Your task to perform on an android device: Open the phone app and click the voicemail tab. Image 0: 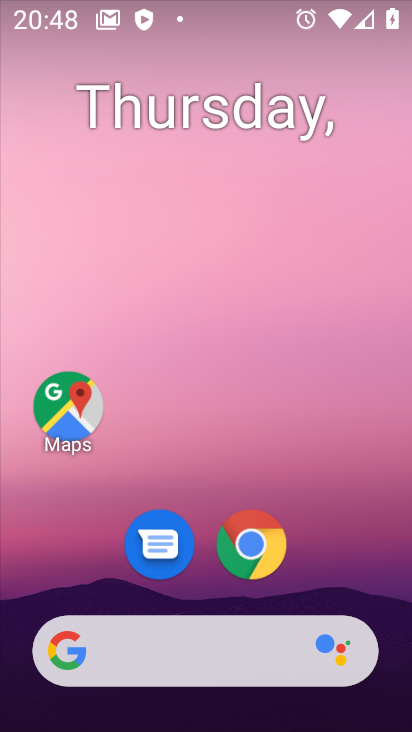
Step 0: drag from (201, 596) to (216, 314)
Your task to perform on an android device: Open the phone app and click the voicemail tab. Image 1: 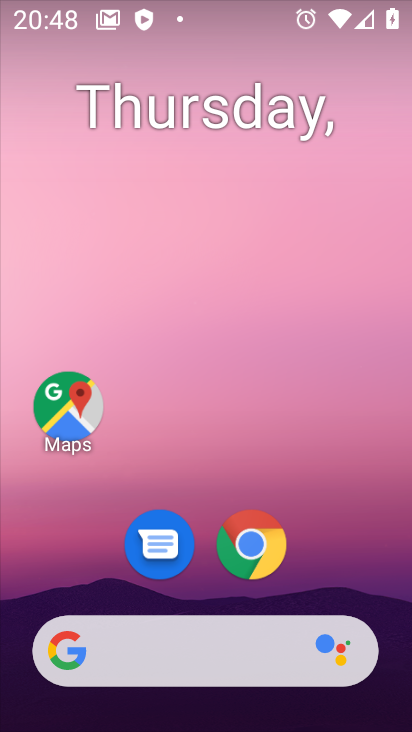
Step 1: drag from (205, 584) to (245, 0)
Your task to perform on an android device: Open the phone app and click the voicemail tab. Image 2: 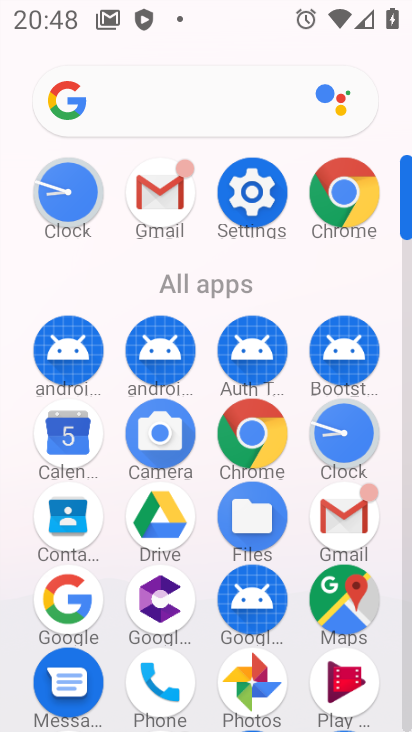
Step 2: click (148, 670)
Your task to perform on an android device: Open the phone app and click the voicemail tab. Image 3: 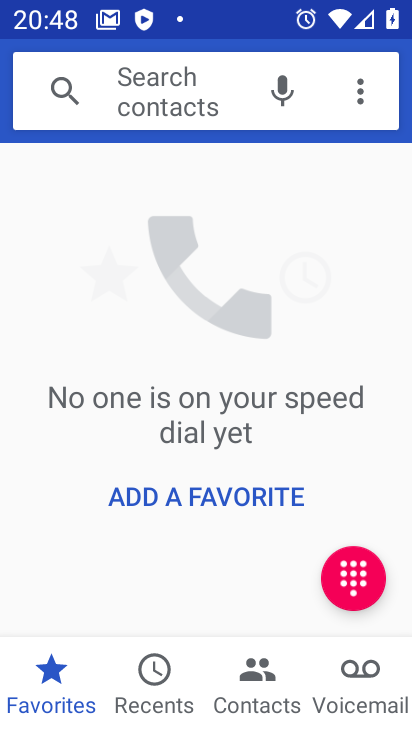
Step 3: click (344, 704)
Your task to perform on an android device: Open the phone app and click the voicemail tab. Image 4: 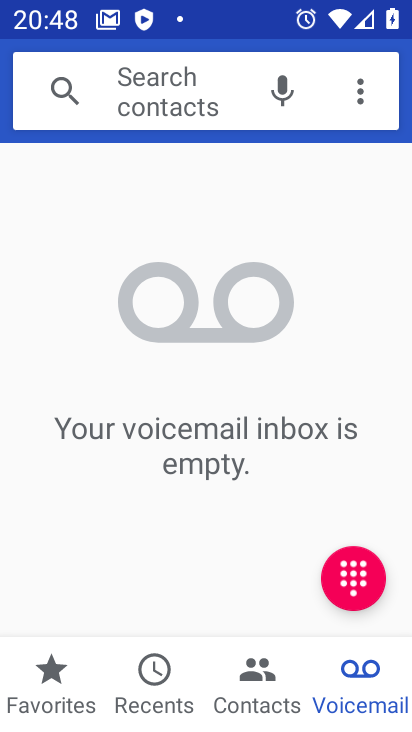
Step 4: task complete